Your task to perform on an android device: Search for vegetarian restaurants on Maps Image 0: 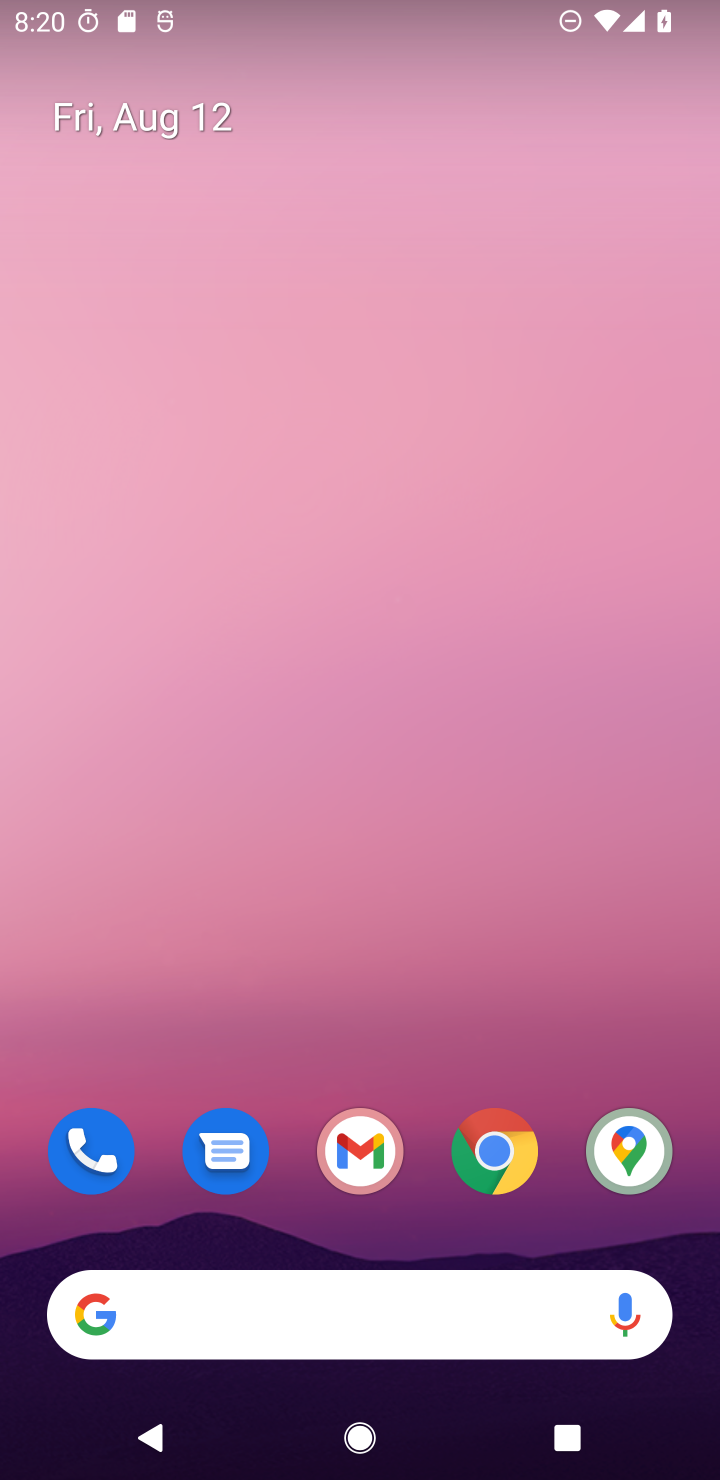
Step 0: drag from (397, 1020) to (530, 0)
Your task to perform on an android device: Search for vegetarian restaurants on Maps Image 1: 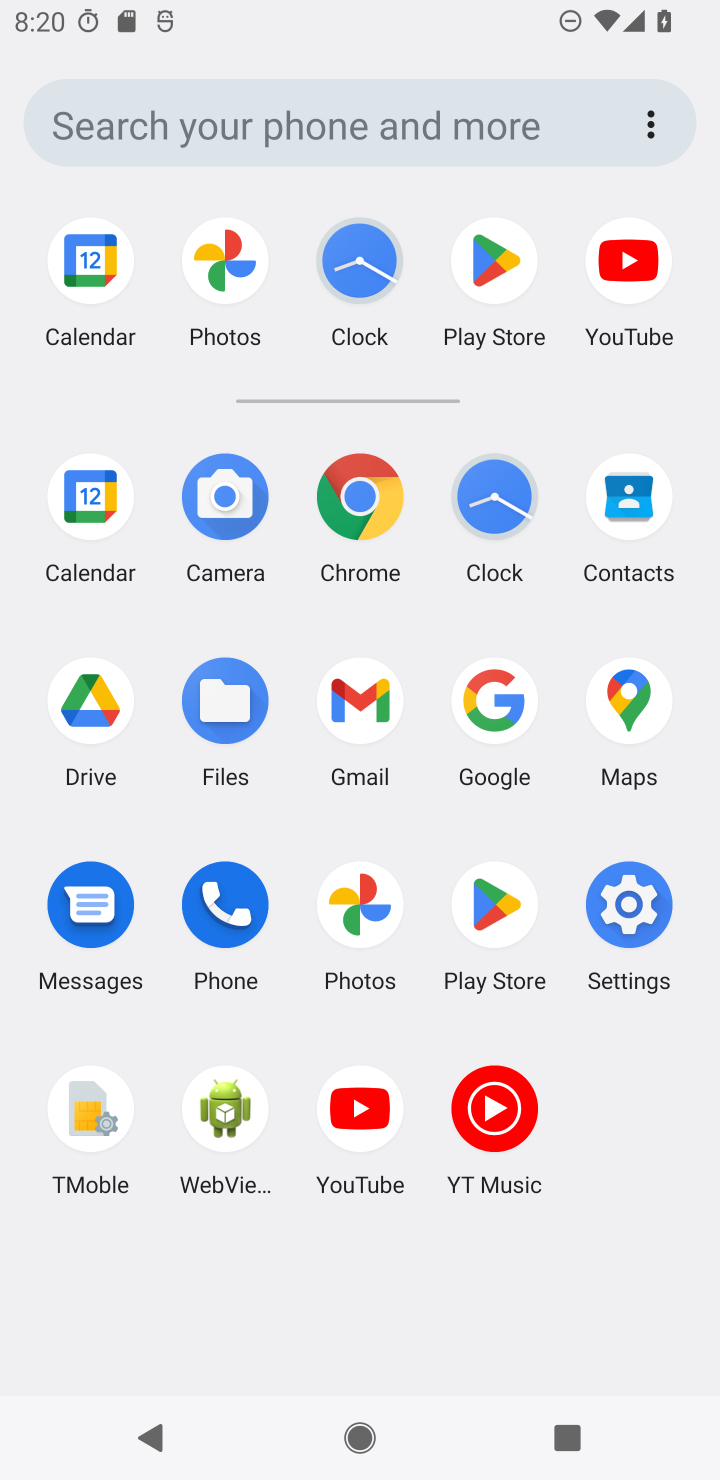
Step 1: click (620, 708)
Your task to perform on an android device: Search for vegetarian restaurants on Maps Image 2: 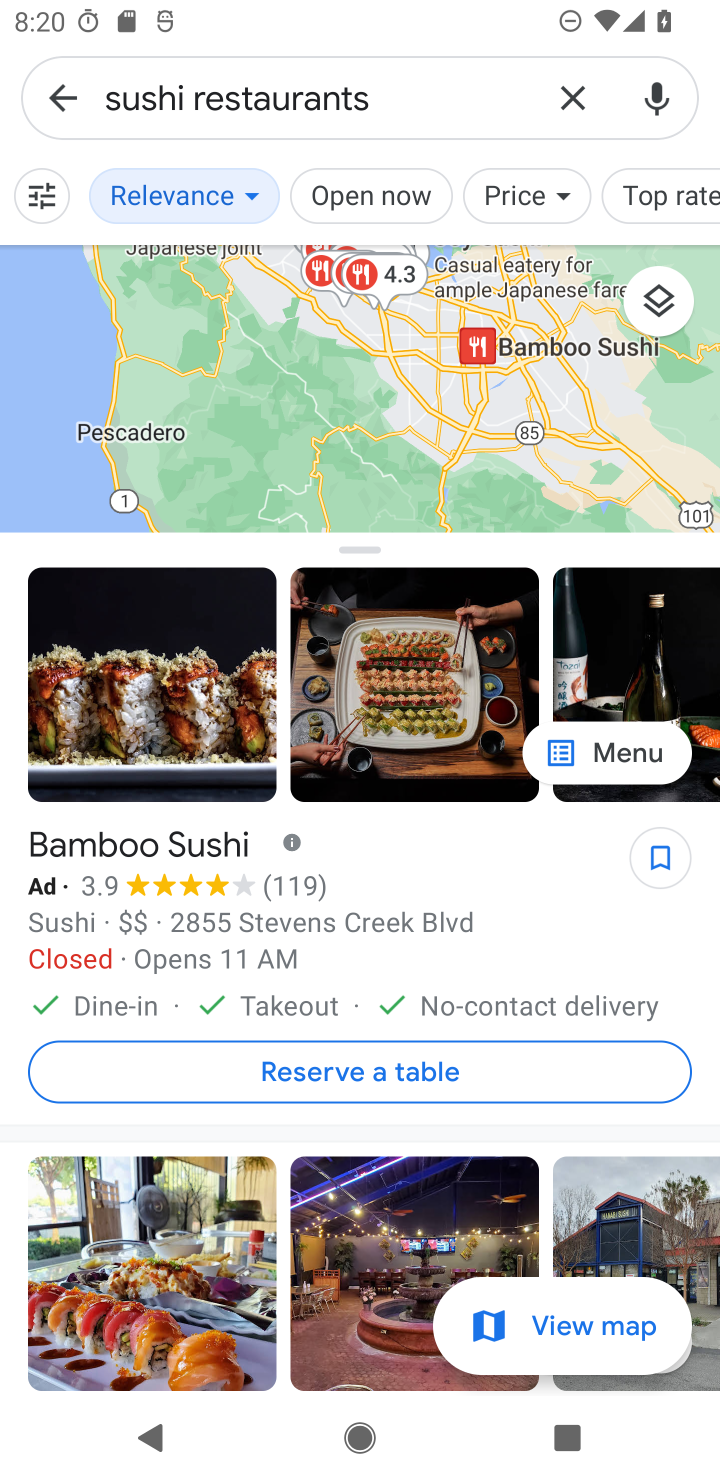
Step 2: click (577, 86)
Your task to perform on an android device: Search for vegetarian restaurants on Maps Image 3: 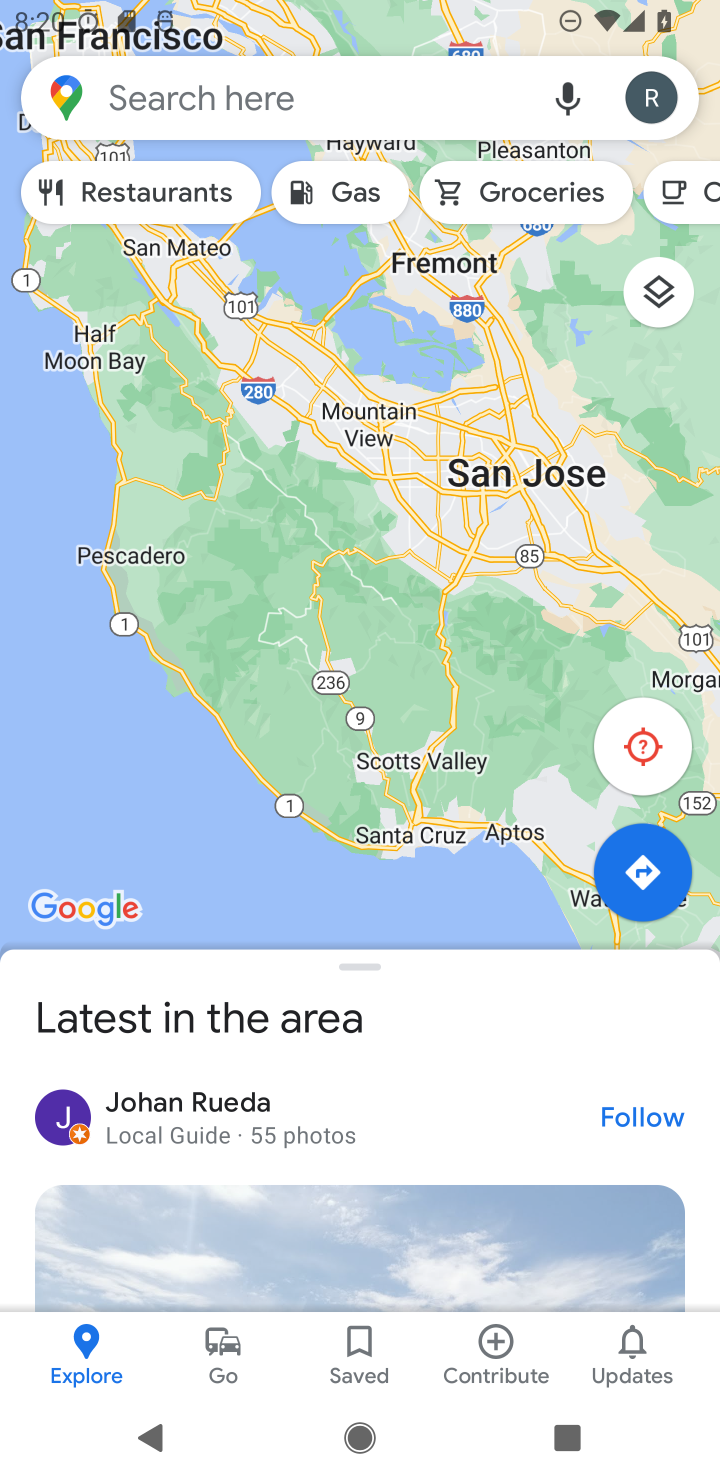
Step 3: click (398, 90)
Your task to perform on an android device: Search for vegetarian restaurants on Maps Image 4: 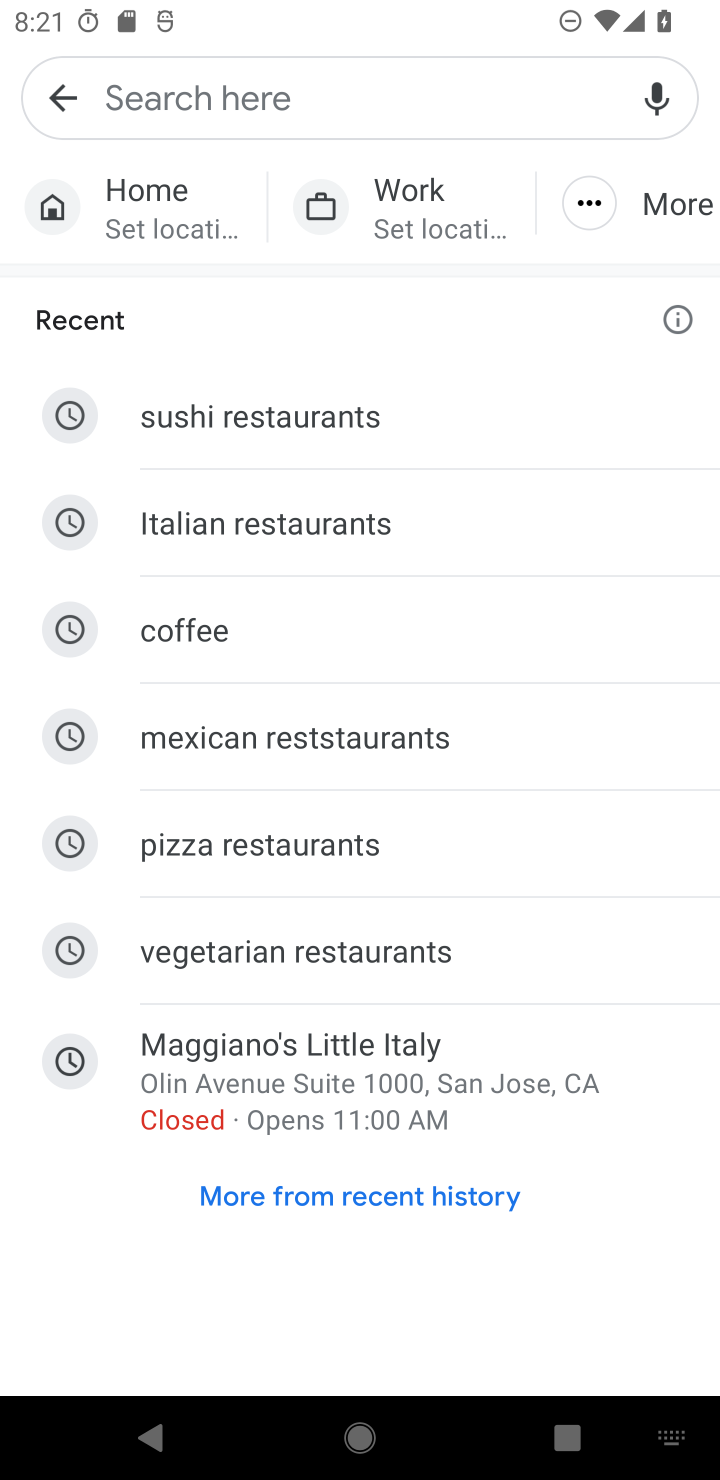
Step 4: click (416, 978)
Your task to perform on an android device: Search for vegetarian restaurants on Maps Image 5: 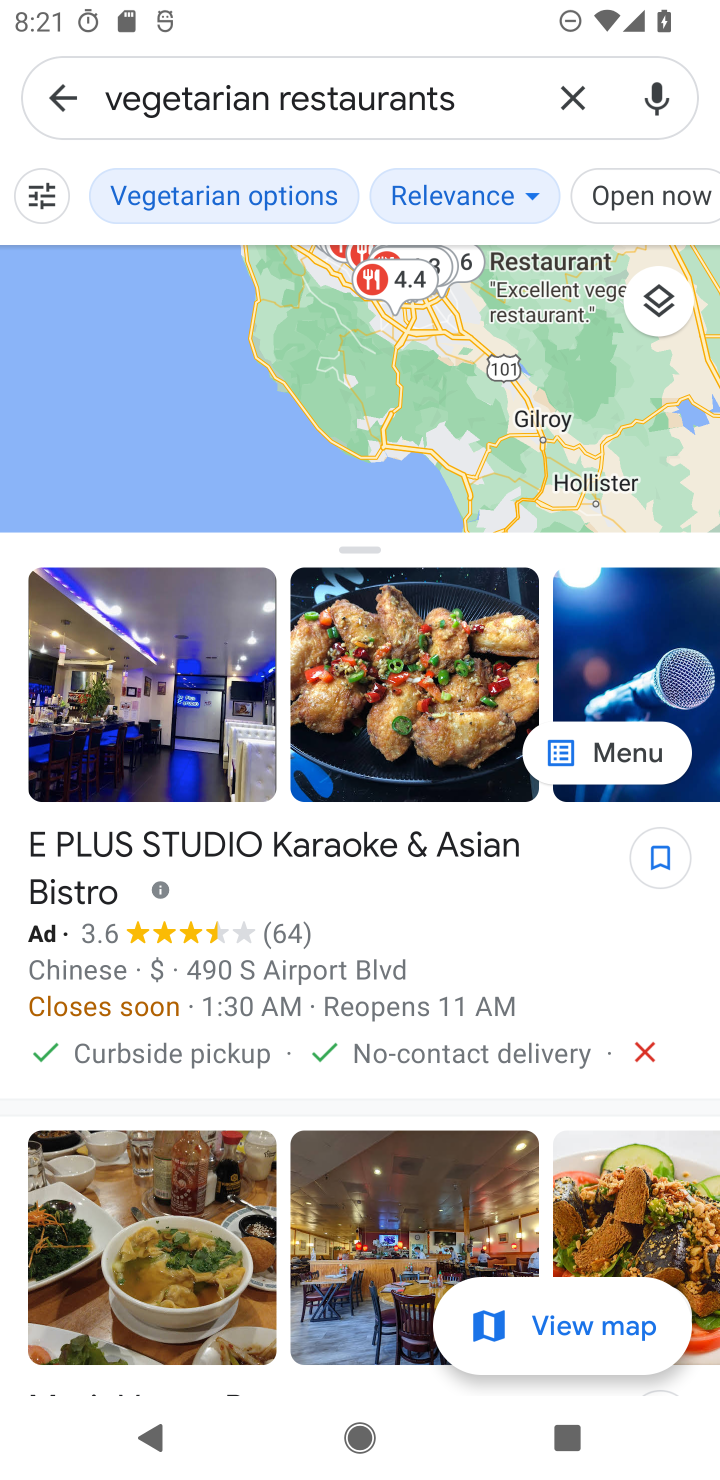
Step 5: task complete